Your task to perform on an android device: show emergency info Image 0: 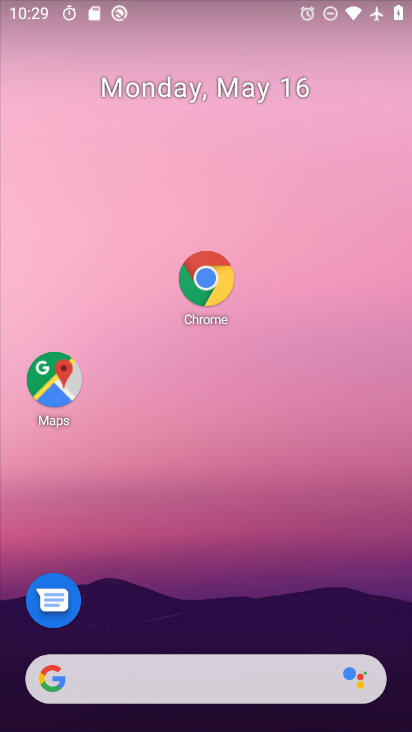
Step 0: drag from (211, 645) to (340, 133)
Your task to perform on an android device: show emergency info Image 1: 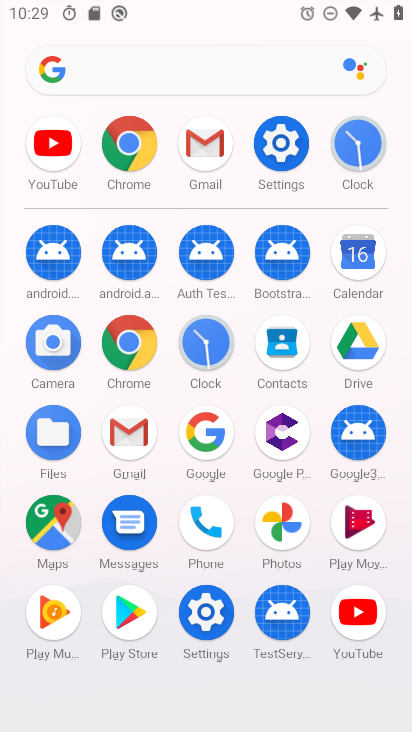
Step 1: click (288, 130)
Your task to perform on an android device: show emergency info Image 2: 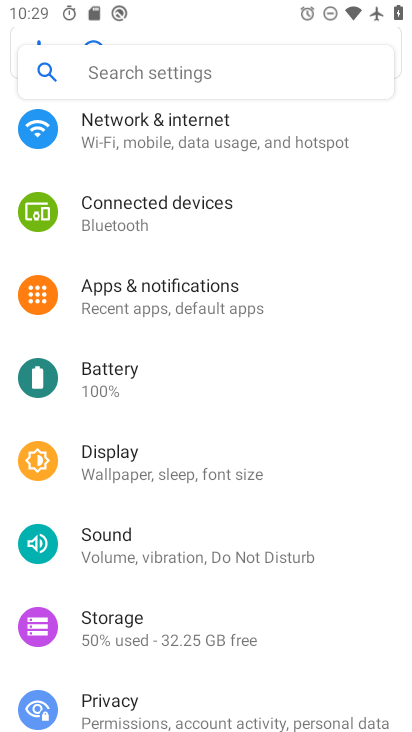
Step 2: drag from (207, 659) to (343, 97)
Your task to perform on an android device: show emergency info Image 3: 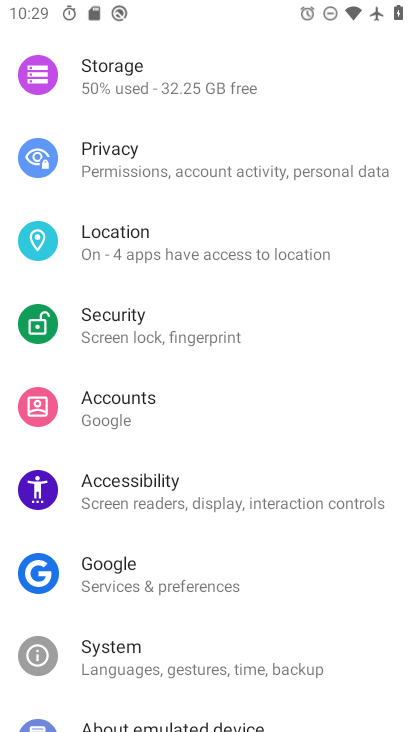
Step 3: drag from (215, 662) to (311, 105)
Your task to perform on an android device: show emergency info Image 4: 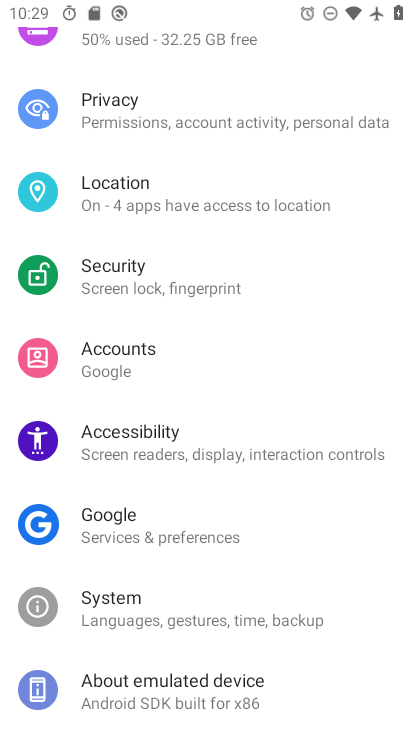
Step 4: click (186, 689)
Your task to perform on an android device: show emergency info Image 5: 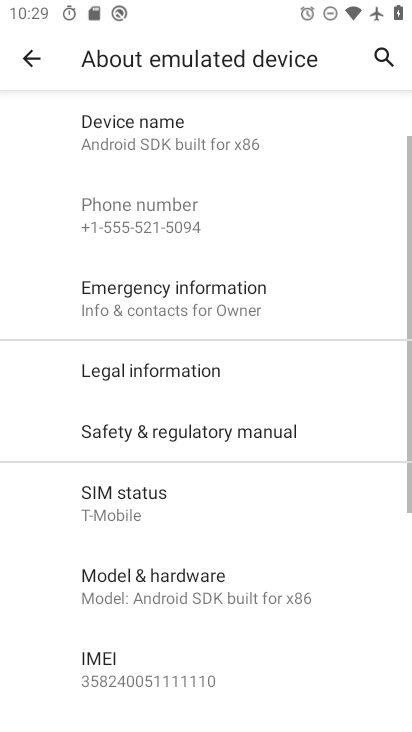
Step 5: click (214, 292)
Your task to perform on an android device: show emergency info Image 6: 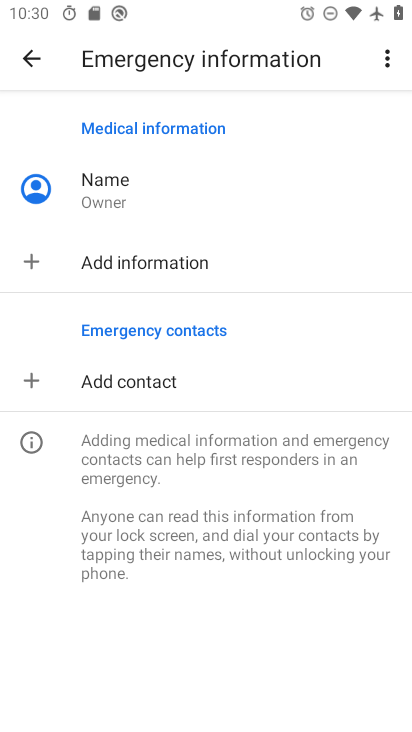
Step 6: task complete